Your task to perform on an android device: move an email to a new category in the gmail app Image 0: 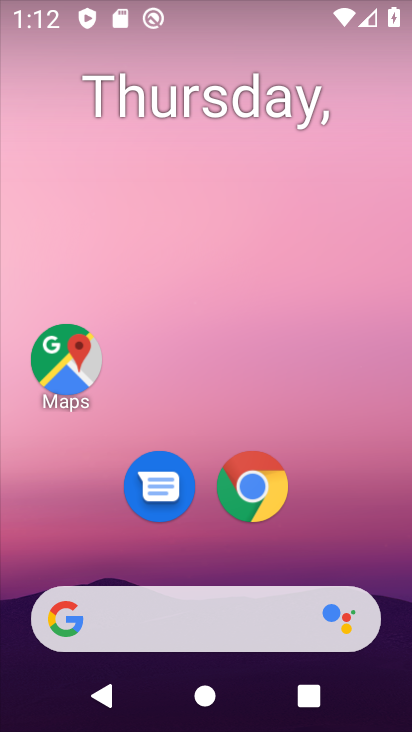
Step 0: drag from (399, 583) to (320, 131)
Your task to perform on an android device: move an email to a new category in the gmail app Image 1: 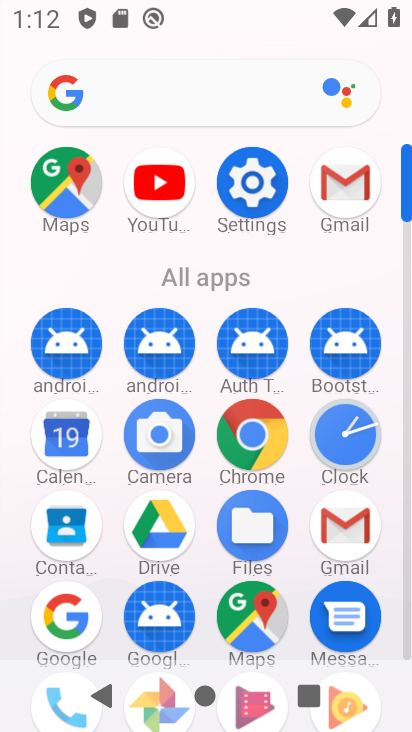
Step 1: click (343, 178)
Your task to perform on an android device: move an email to a new category in the gmail app Image 2: 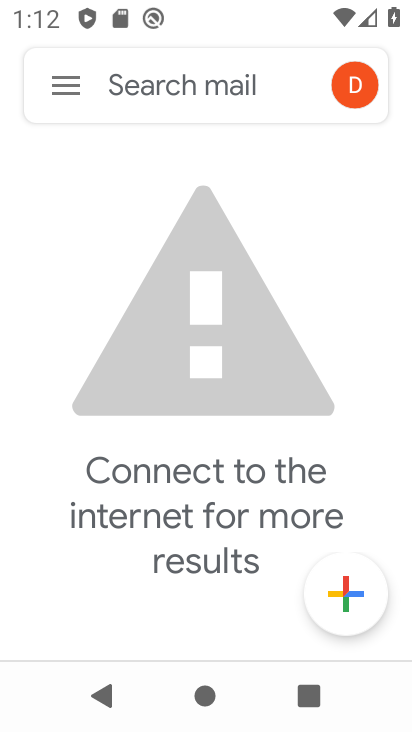
Step 2: task complete